Your task to perform on an android device: Go to notification settings Image 0: 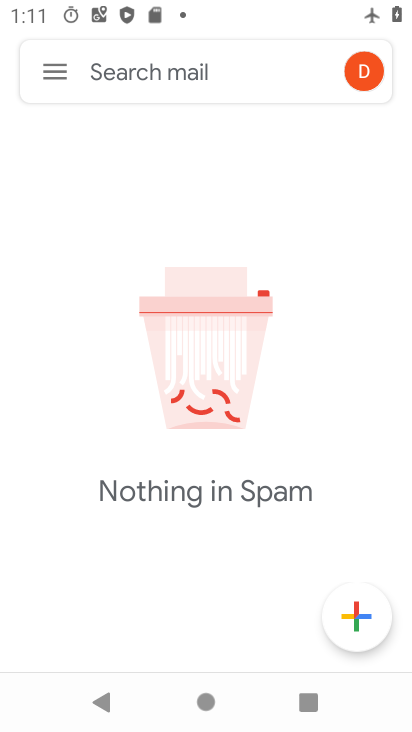
Step 0: press home button
Your task to perform on an android device: Go to notification settings Image 1: 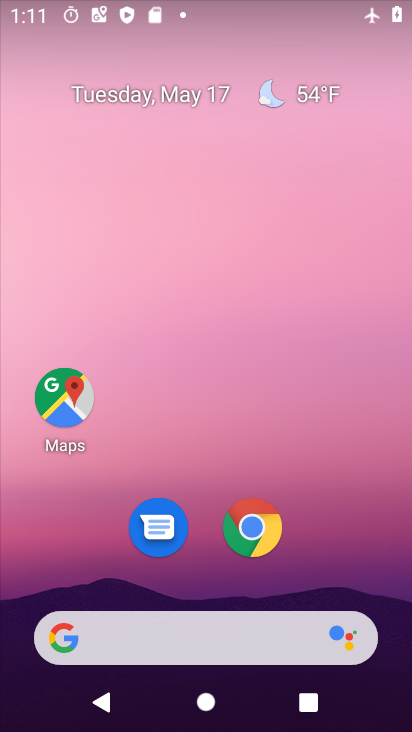
Step 1: drag from (202, 693) to (306, 289)
Your task to perform on an android device: Go to notification settings Image 2: 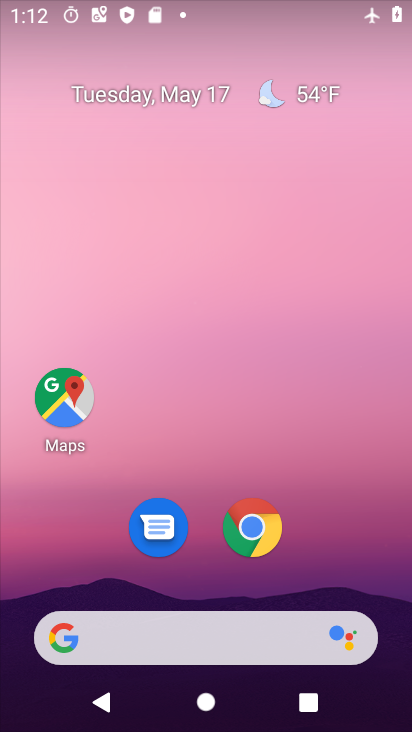
Step 2: drag from (219, 681) to (350, 132)
Your task to perform on an android device: Go to notification settings Image 3: 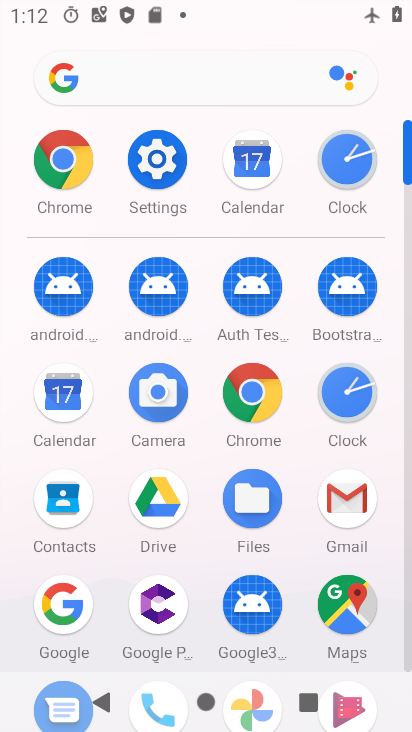
Step 3: click (170, 166)
Your task to perform on an android device: Go to notification settings Image 4: 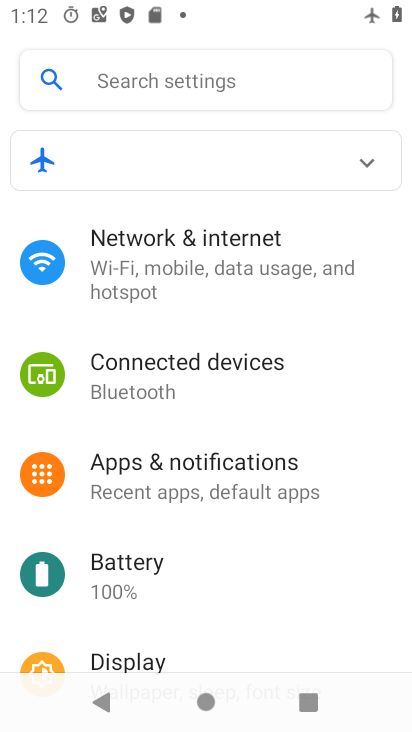
Step 4: click (148, 84)
Your task to perform on an android device: Go to notification settings Image 5: 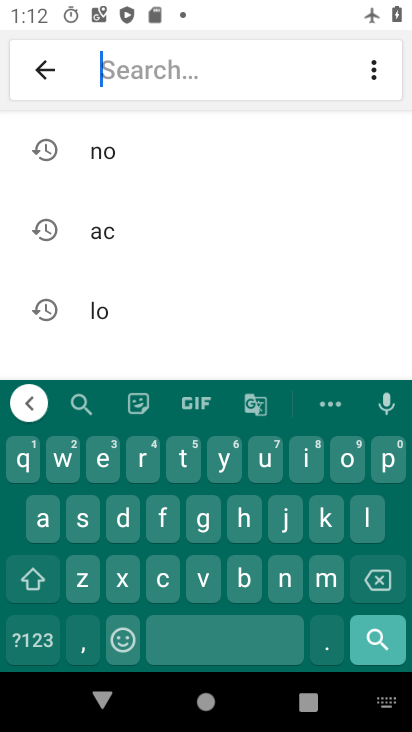
Step 5: click (281, 590)
Your task to perform on an android device: Go to notification settings Image 6: 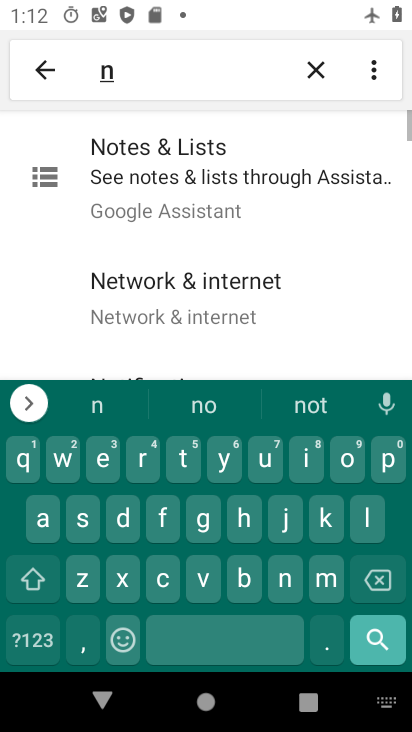
Step 6: click (353, 465)
Your task to perform on an android device: Go to notification settings Image 7: 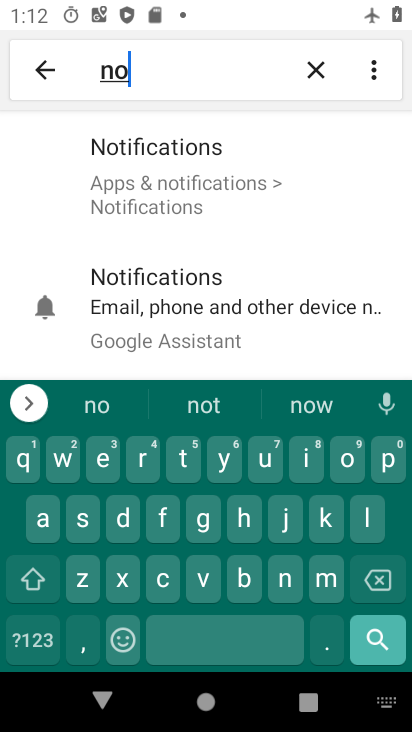
Step 7: click (162, 208)
Your task to perform on an android device: Go to notification settings Image 8: 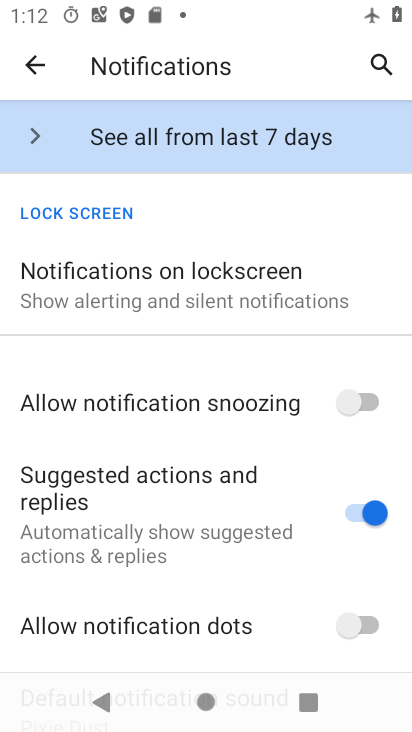
Step 8: click (135, 275)
Your task to perform on an android device: Go to notification settings Image 9: 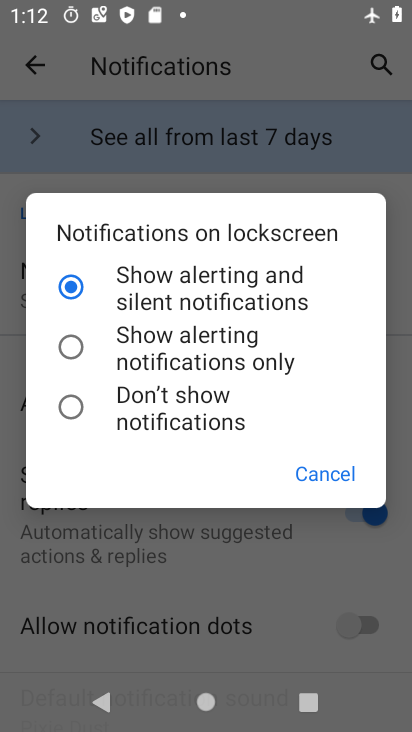
Step 9: task complete